Your task to perform on an android device: Open the calendar app, open the side menu, and click the "Day" option Image 0: 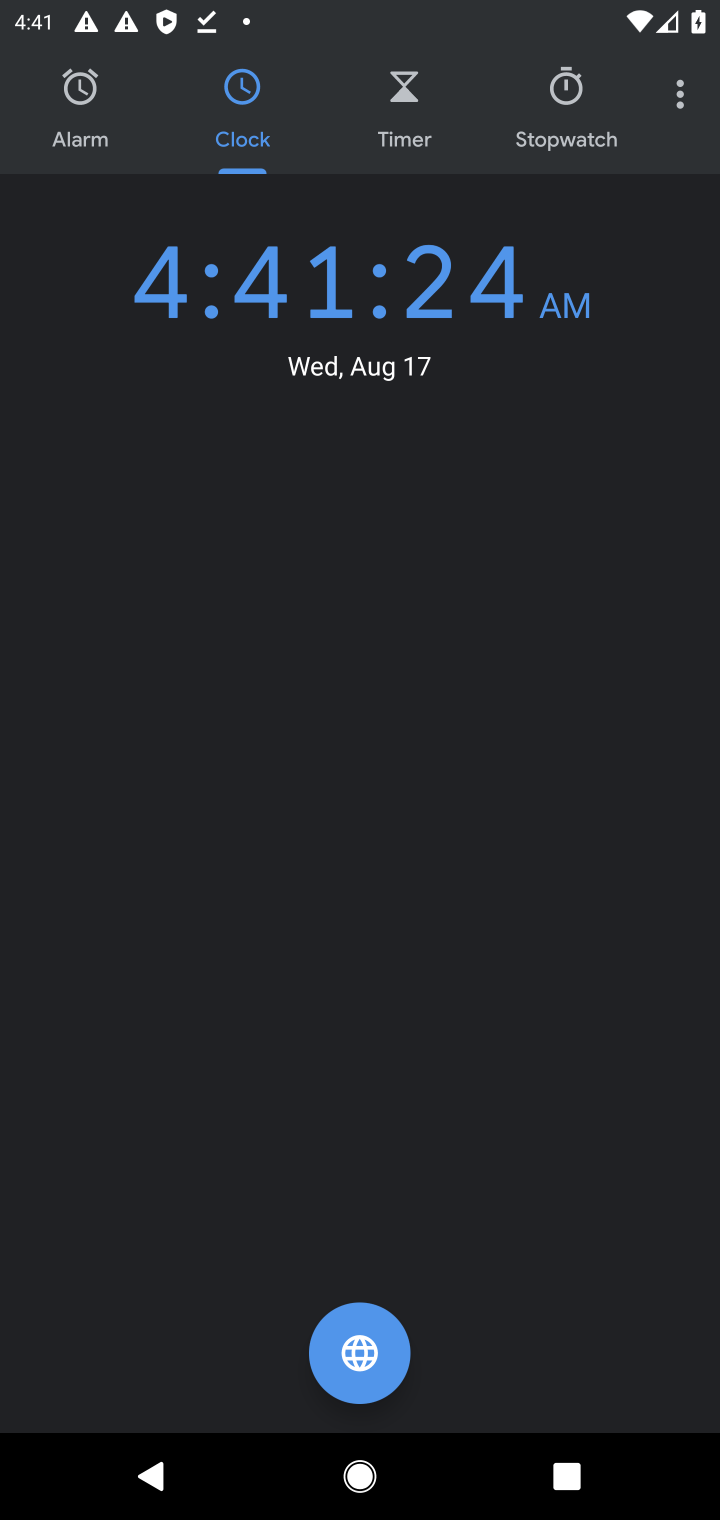
Step 0: press home button
Your task to perform on an android device: Open the calendar app, open the side menu, and click the "Day" option Image 1: 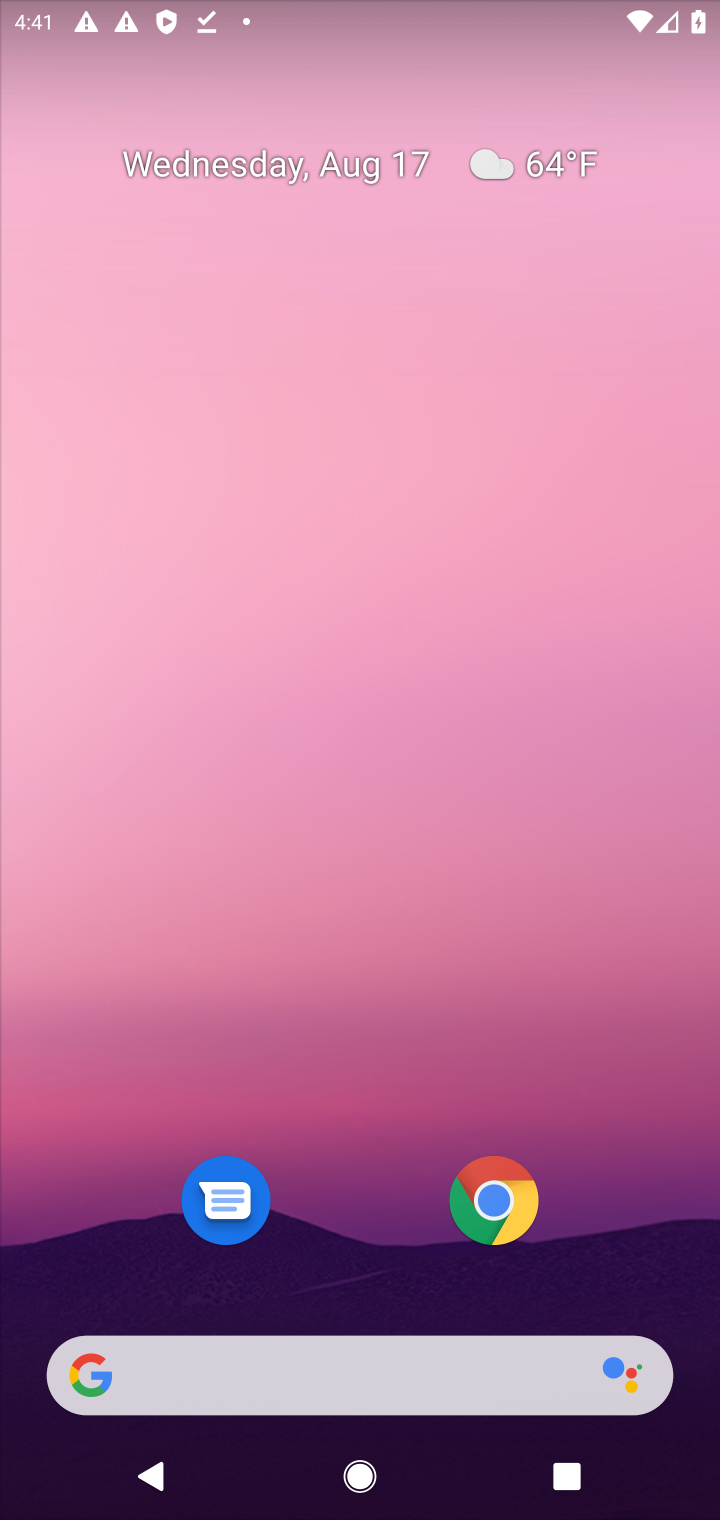
Step 1: drag from (341, 1049) to (325, 57)
Your task to perform on an android device: Open the calendar app, open the side menu, and click the "Day" option Image 2: 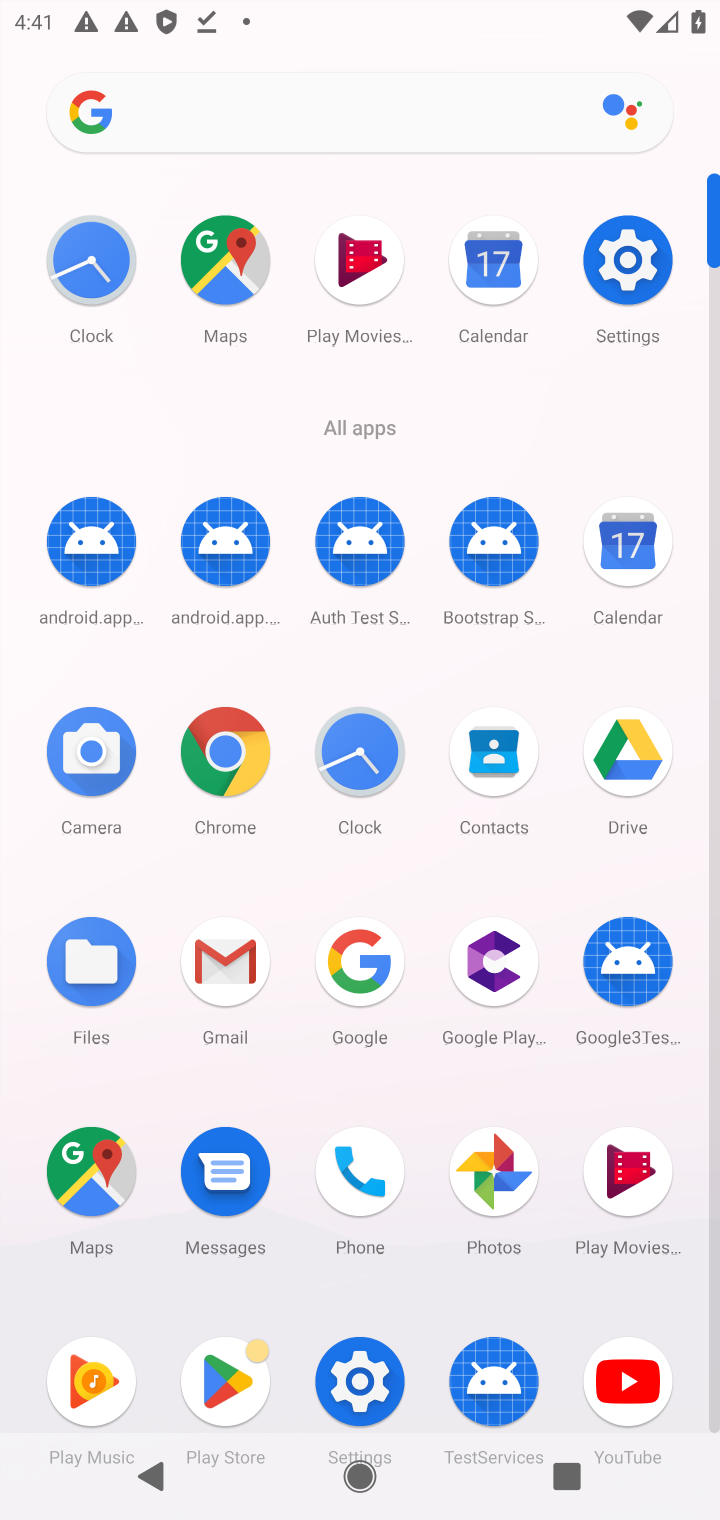
Step 2: click (637, 546)
Your task to perform on an android device: Open the calendar app, open the side menu, and click the "Day" option Image 3: 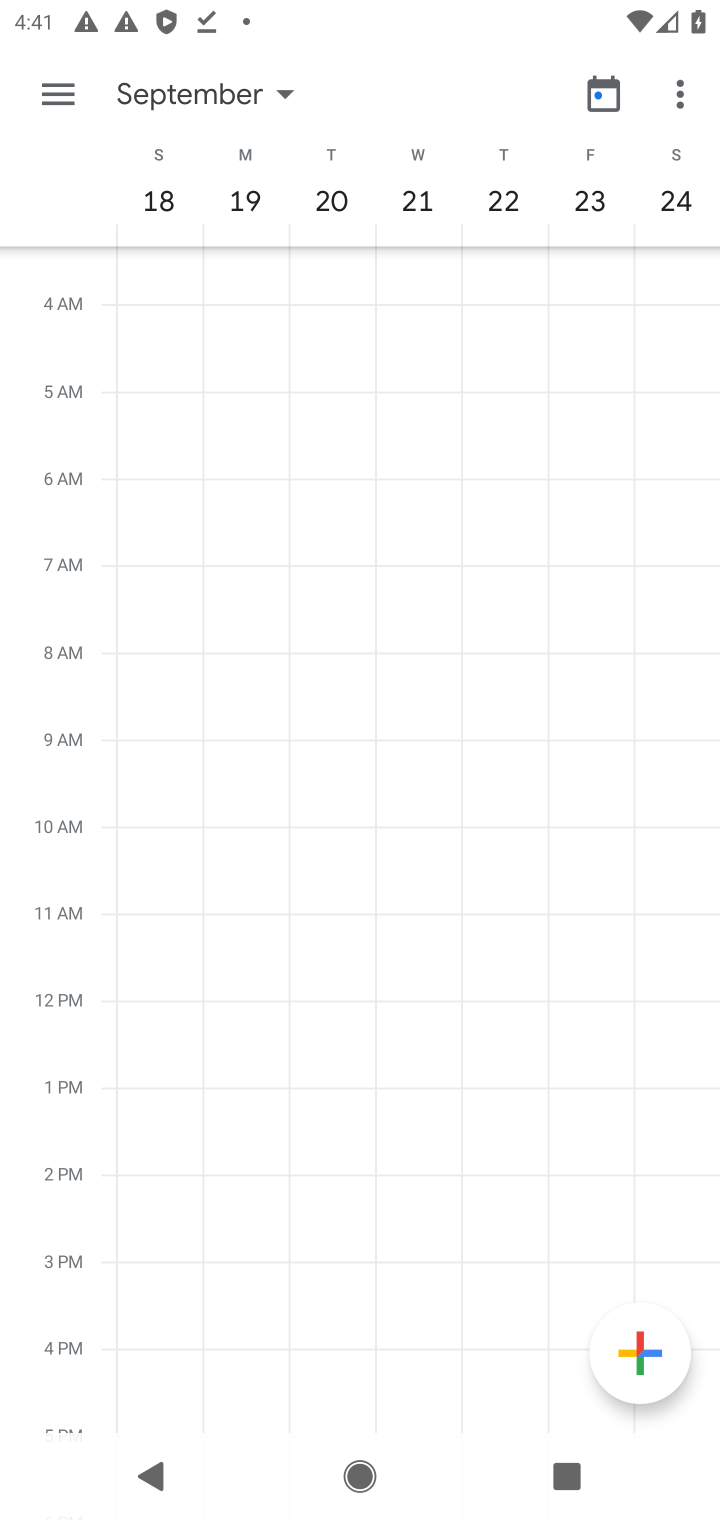
Step 3: click (58, 87)
Your task to perform on an android device: Open the calendar app, open the side menu, and click the "Day" option Image 4: 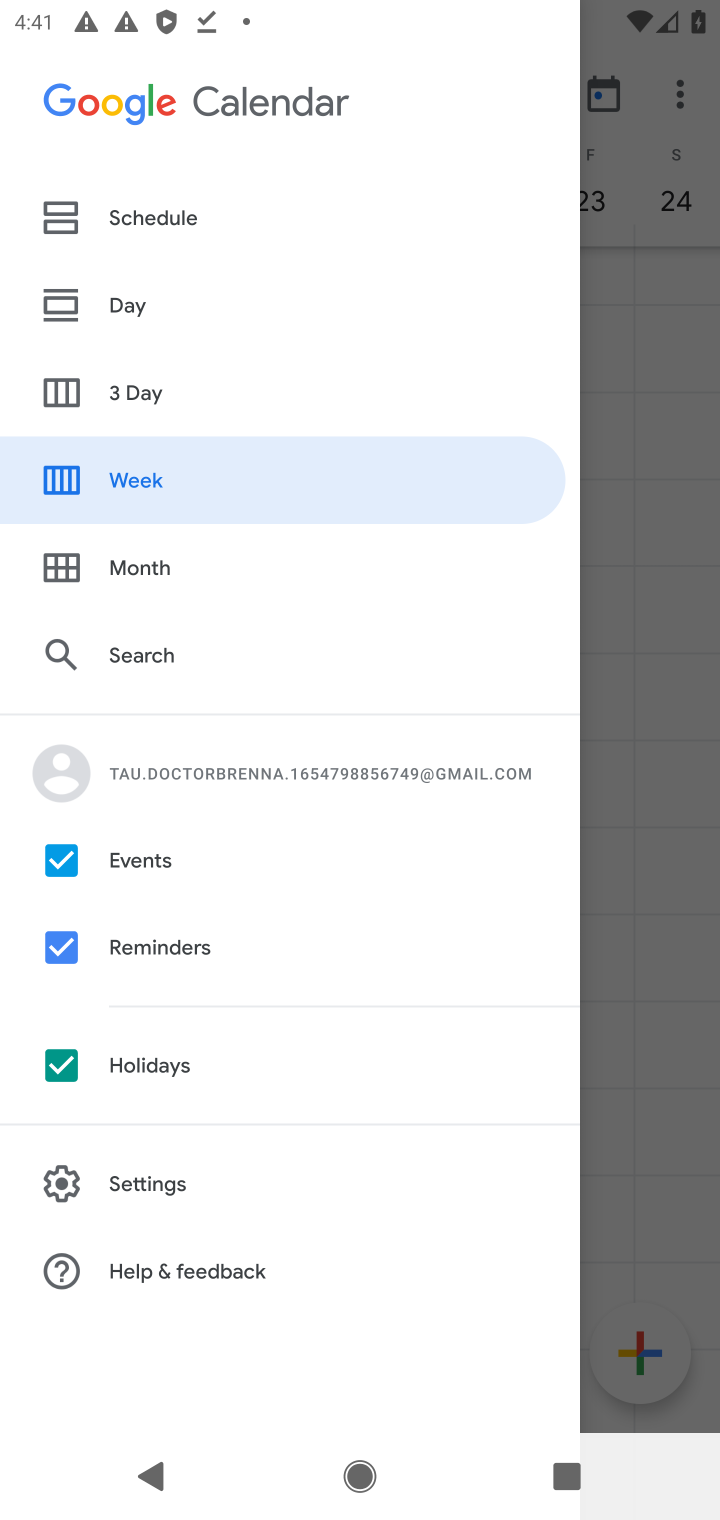
Step 4: click (132, 304)
Your task to perform on an android device: Open the calendar app, open the side menu, and click the "Day" option Image 5: 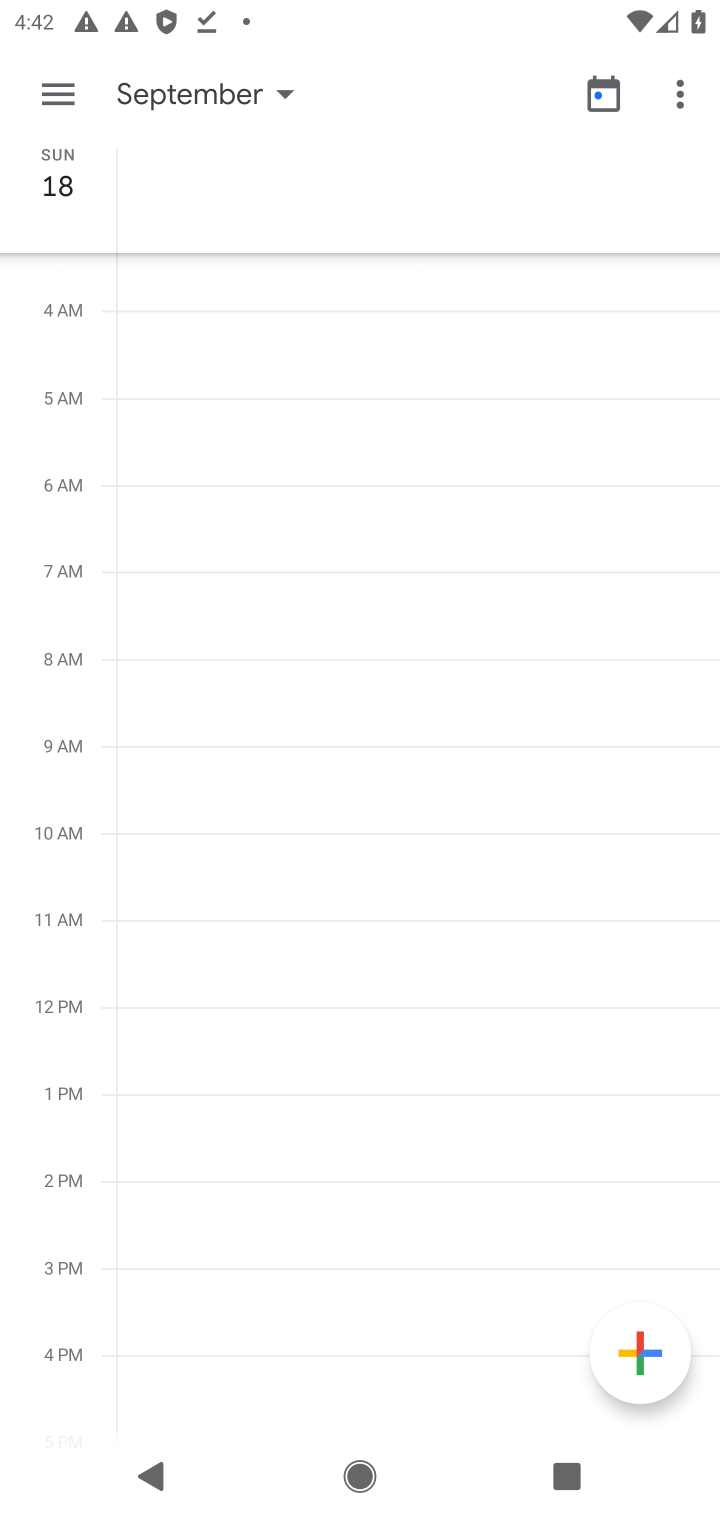
Step 5: task complete